Your task to perform on an android device: Open Reddit.com Image 0: 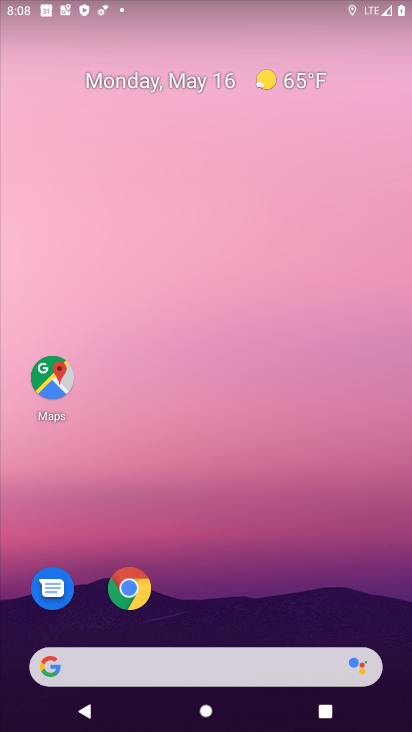
Step 0: drag from (189, 542) to (194, 20)
Your task to perform on an android device: Open Reddit.com Image 1: 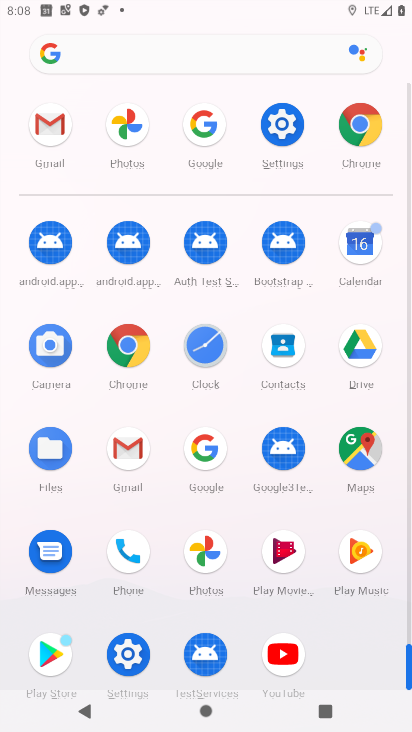
Step 1: click (129, 341)
Your task to perform on an android device: Open Reddit.com Image 2: 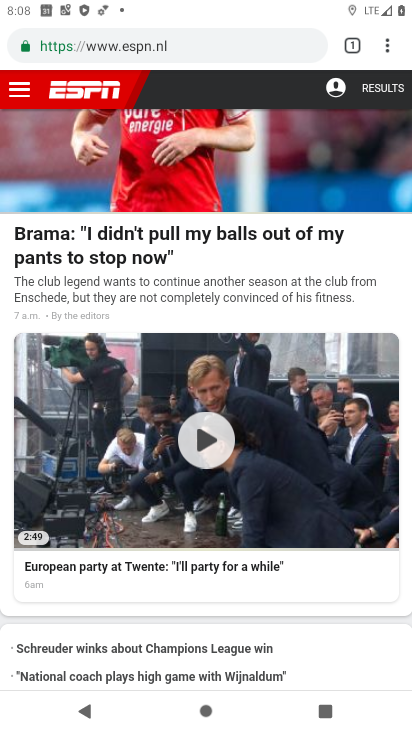
Step 2: click (142, 47)
Your task to perform on an android device: Open Reddit.com Image 3: 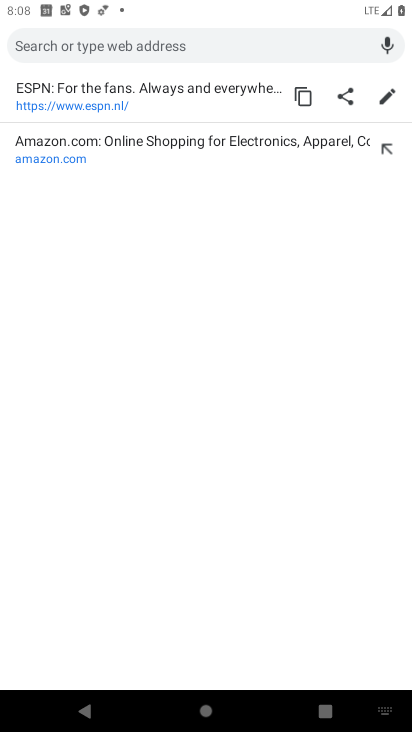
Step 3: type "Reddit.com"
Your task to perform on an android device: Open Reddit.com Image 4: 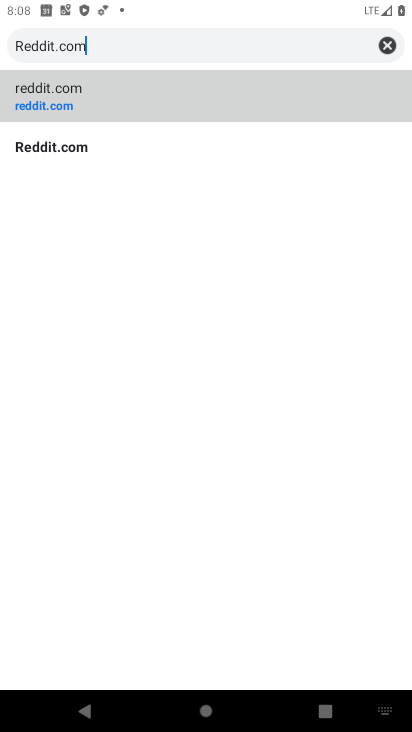
Step 4: type ""
Your task to perform on an android device: Open Reddit.com Image 5: 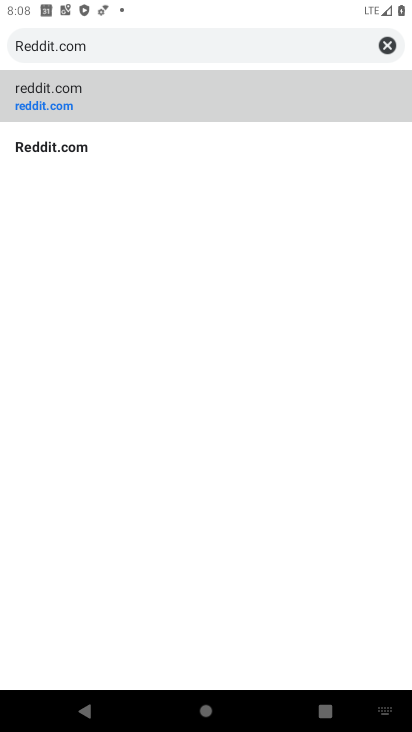
Step 5: click (128, 99)
Your task to perform on an android device: Open Reddit.com Image 6: 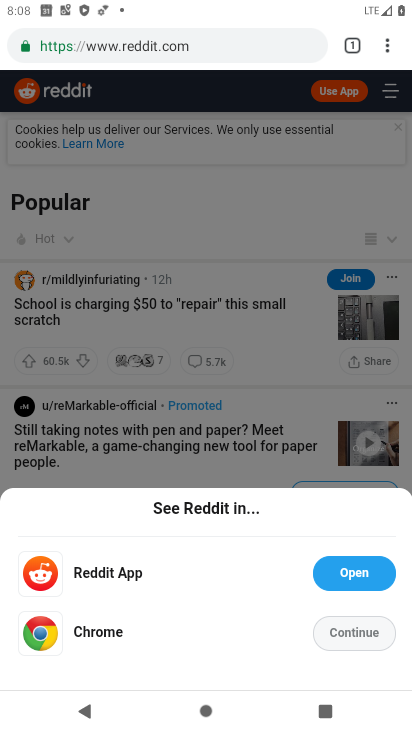
Step 6: task complete